Your task to perform on an android device: turn on translation in the chrome app Image 0: 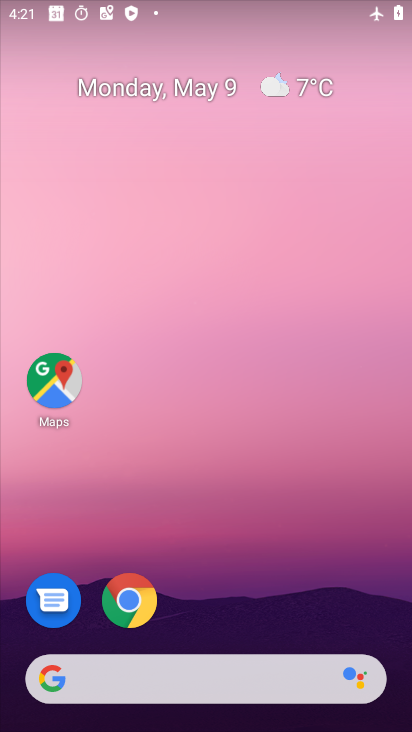
Step 0: click (132, 597)
Your task to perform on an android device: turn on translation in the chrome app Image 1: 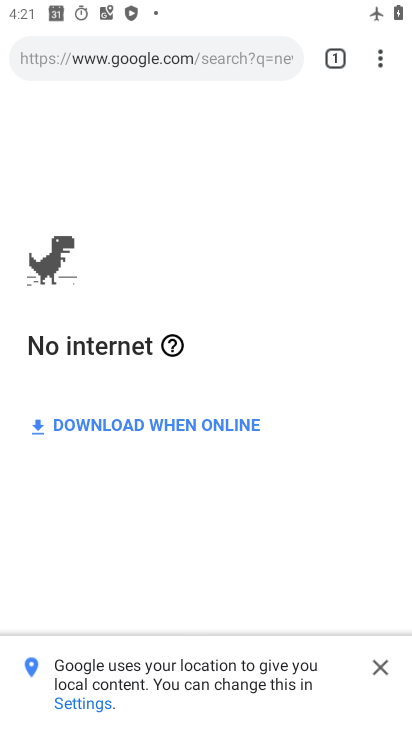
Step 1: drag from (383, 65) to (239, 629)
Your task to perform on an android device: turn on translation in the chrome app Image 2: 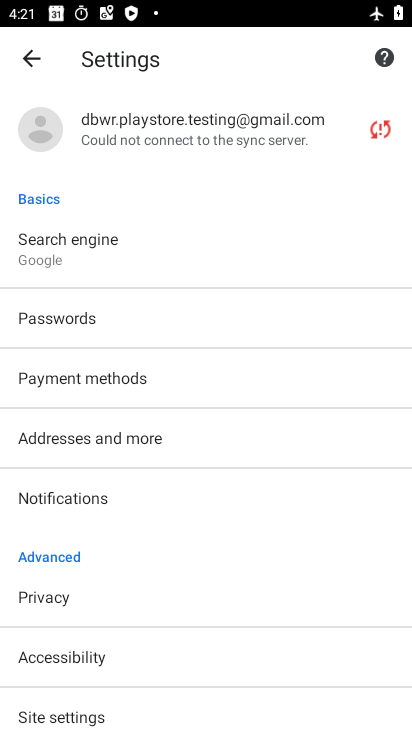
Step 2: drag from (224, 610) to (248, 300)
Your task to perform on an android device: turn on translation in the chrome app Image 3: 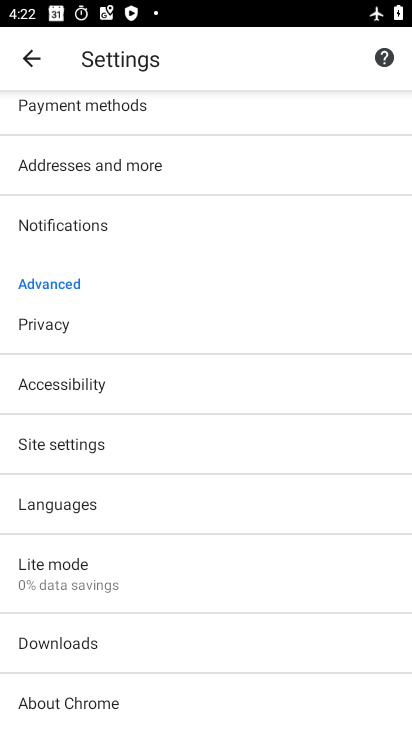
Step 3: click (103, 510)
Your task to perform on an android device: turn on translation in the chrome app Image 4: 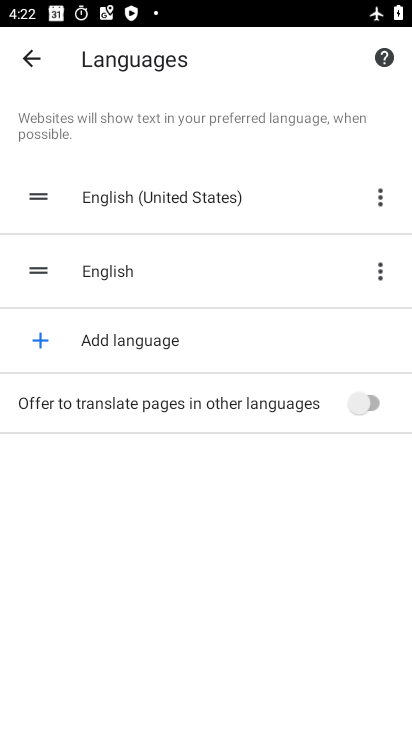
Step 4: click (359, 405)
Your task to perform on an android device: turn on translation in the chrome app Image 5: 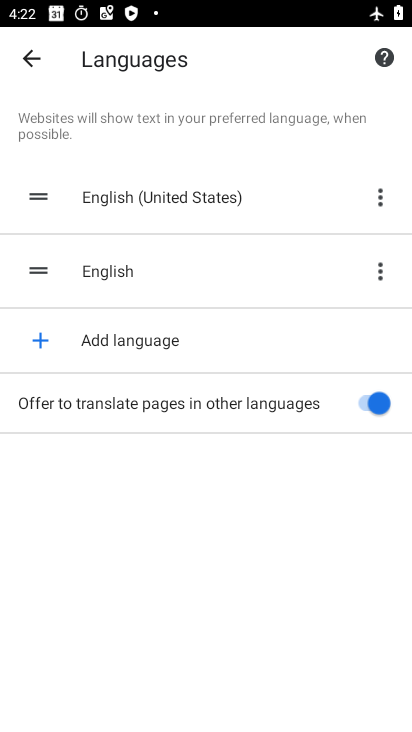
Step 5: task complete